Your task to perform on an android device: Go to Android settings Image 0: 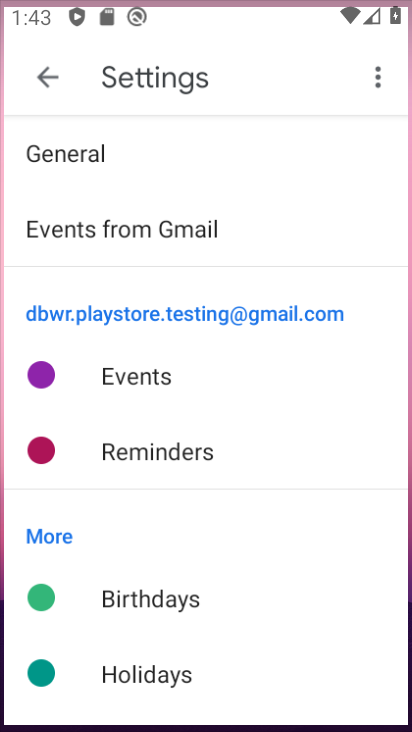
Step 0: drag from (386, 661) to (411, 456)
Your task to perform on an android device: Go to Android settings Image 1: 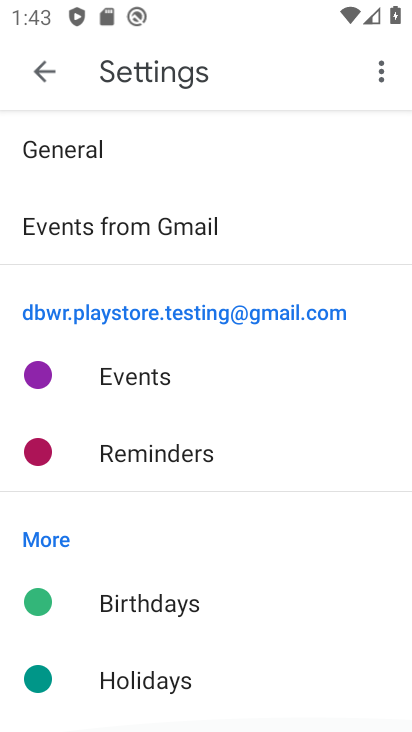
Step 1: press home button
Your task to perform on an android device: Go to Android settings Image 2: 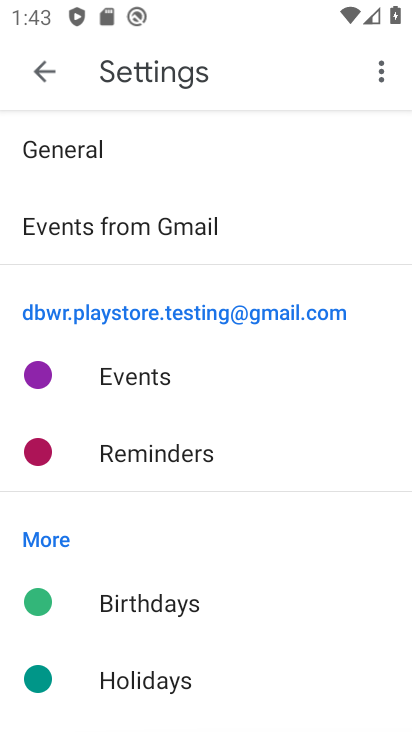
Step 2: click (391, 517)
Your task to perform on an android device: Go to Android settings Image 3: 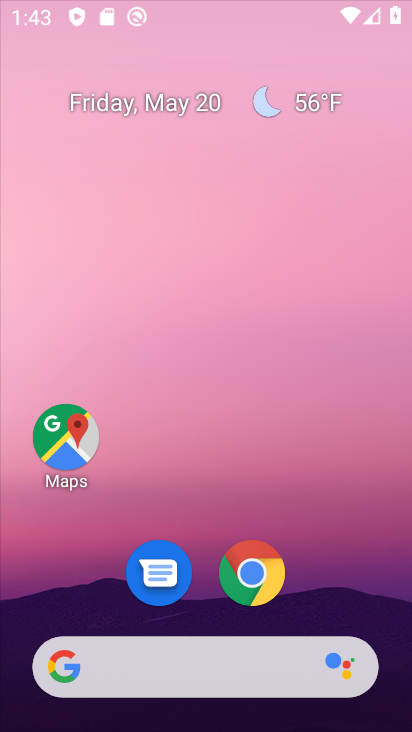
Step 3: drag from (385, 647) to (253, 38)
Your task to perform on an android device: Go to Android settings Image 4: 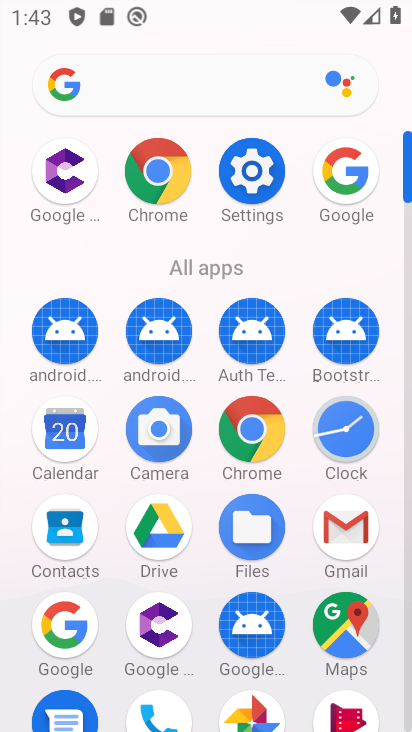
Step 4: click (243, 205)
Your task to perform on an android device: Go to Android settings Image 5: 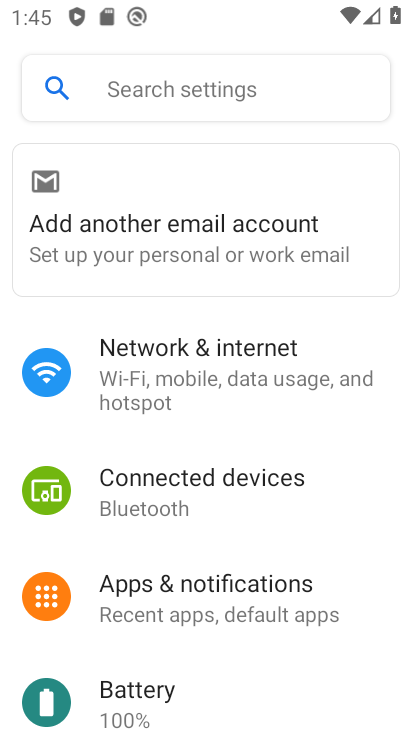
Step 5: drag from (115, 670) to (213, 9)
Your task to perform on an android device: Go to Android settings Image 6: 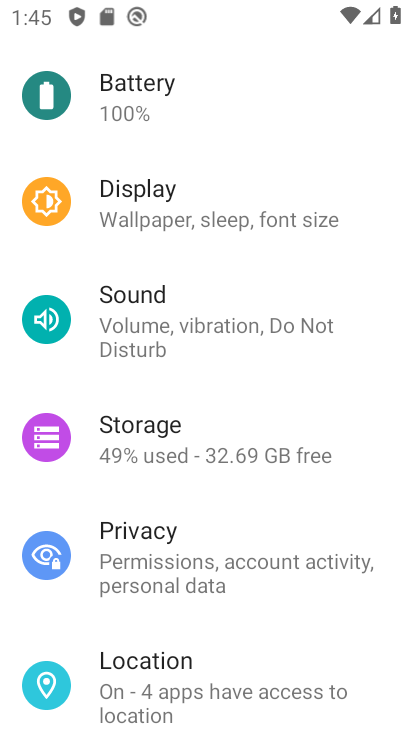
Step 6: drag from (100, 654) to (219, 62)
Your task to perform on an android device: Go to Android settings Image 7: 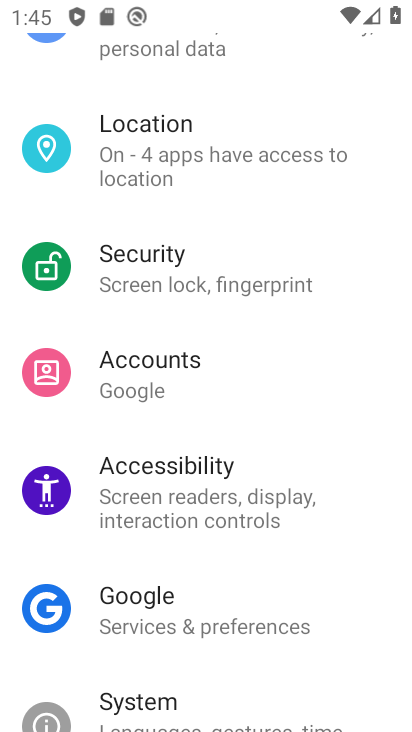
Step 7: drag from (175, 693) to (231, 5)
Your task to perform on an android device: Go to Android settings Image 8: 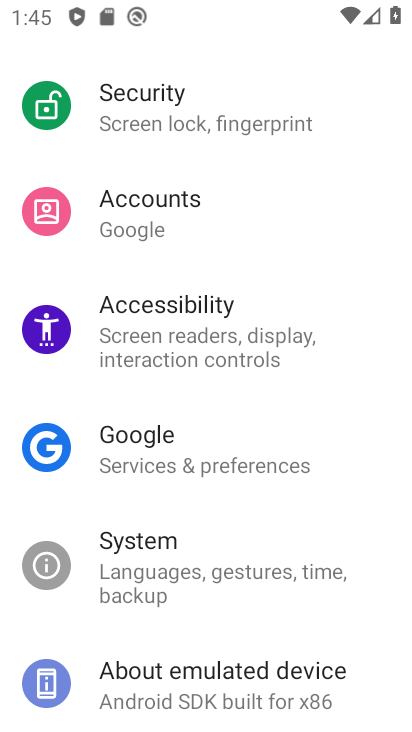
Step 8: click (182, 675)
Your task to perform on an android device: Go to Android settings Image 9: 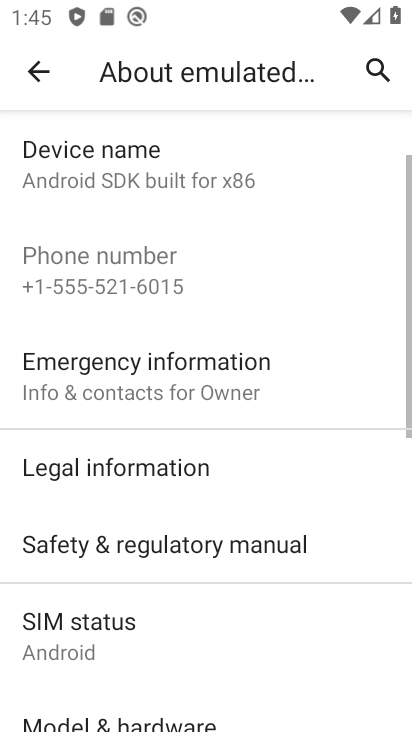
Step 9: drag from (175, 651) to (274, 128)
Your task to perform on an android device: Go to Android settings Image 10: 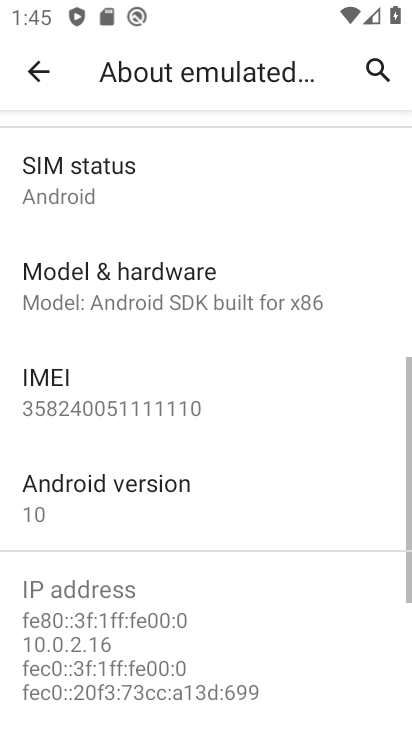
Step 10: click (135, 499)
Your task to perform on an android device: Go to Android settings Image 11: 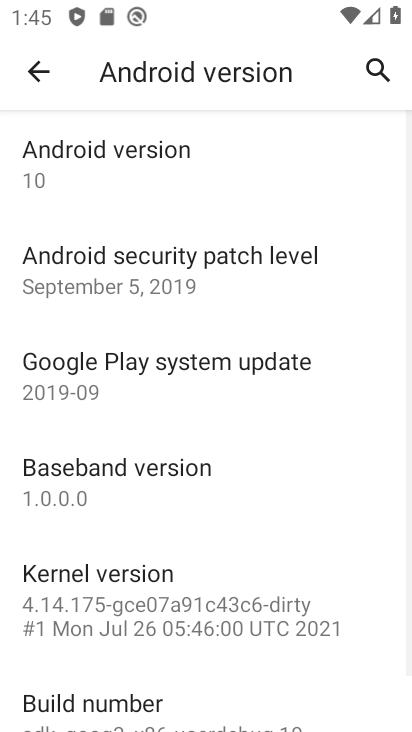
Step 11: task complete